Your task to perform on an android device: toggle notifications settings in the gmail app Image 0: 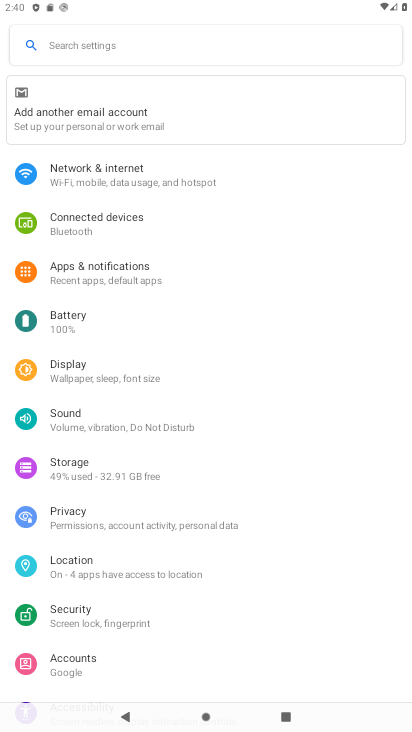
Step 0: press home button
Your task to perform on an android device: toggle notifications settings in the gmail app Image 1: 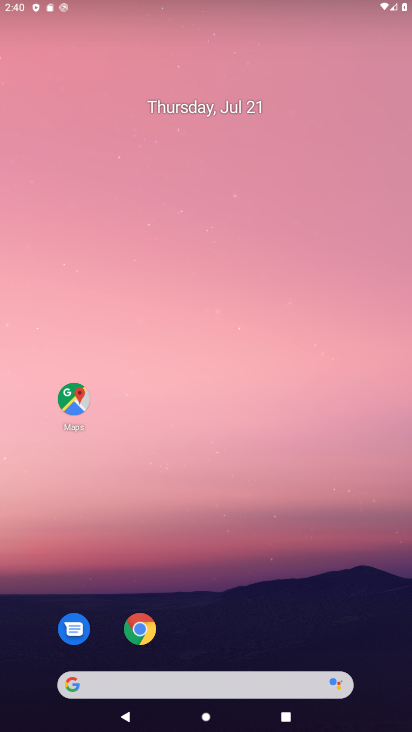
Step 1: drag from (185, 655) to (235, 110)
Your task to perform on an android device: toggle notifications settings in the gmail app Image 2: 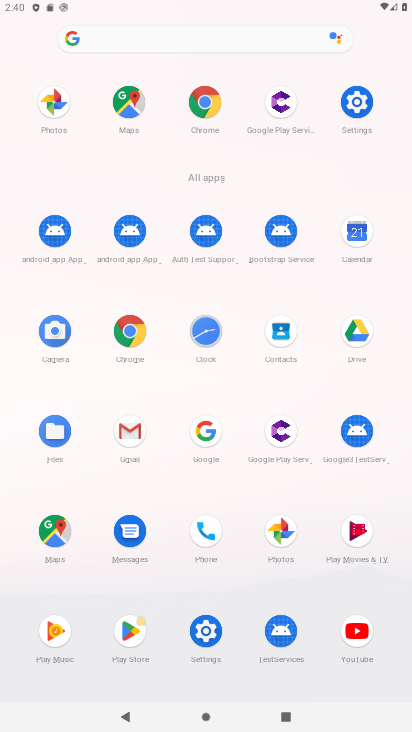
Step 2: click (125, 435)
Your task to perform on an android device: toggle notifications settings in the gmail app Image 3: 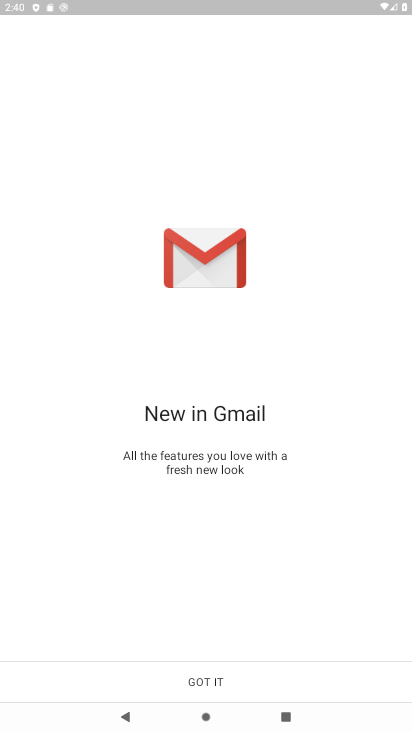
Step 3: click (206, 687)
Your task to perform on an android device: toggle notifications settings in the gmail app Image 4: 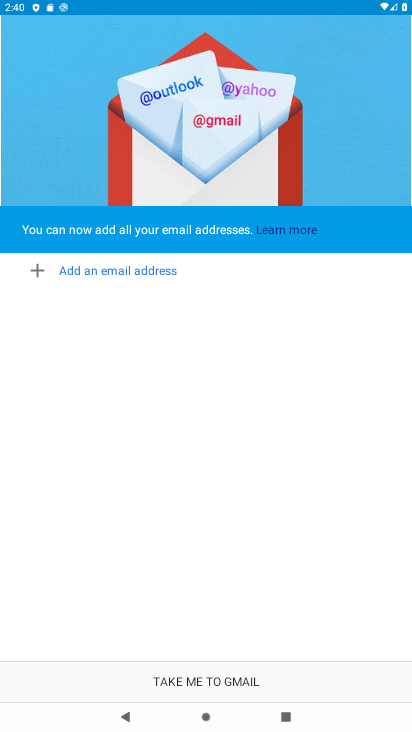
Step 4: click (206, 687)
Your task to perform on an android device: toggle notifications settings in the gmail app Image 5: 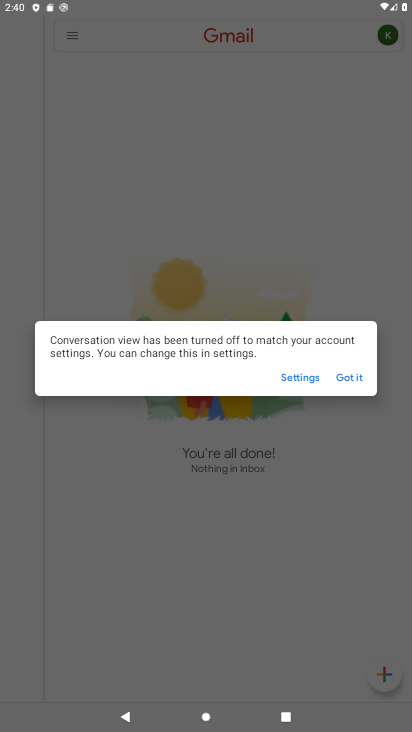
Step 5: click (291, 378)
Your task to perform on an android device: toggle notifications settings in the gmail app Image 6: 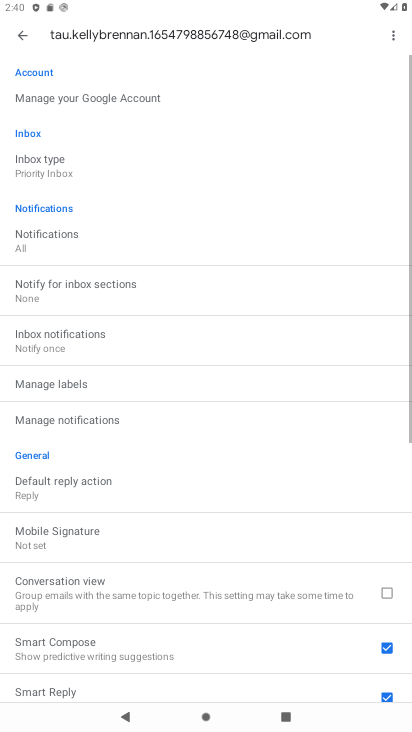
Step 6: click (52, 249)
Your task to perform on an android device: toggle notifications settings in the gmail app Image 7: 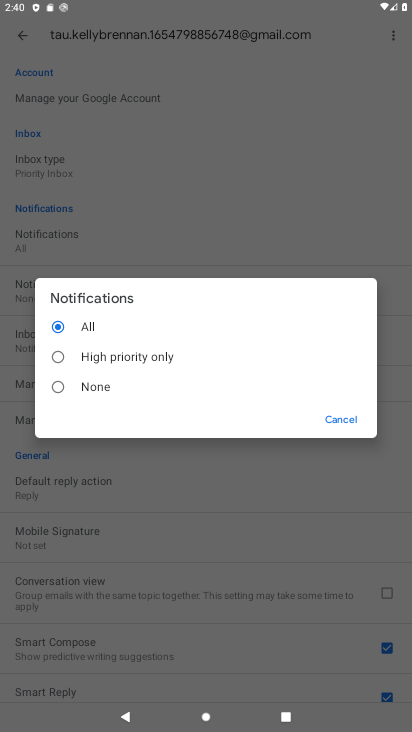
Step 7: click (58, 387)
Your task to perform on an android device: toggle notifications settings in the gmail app Image 8: 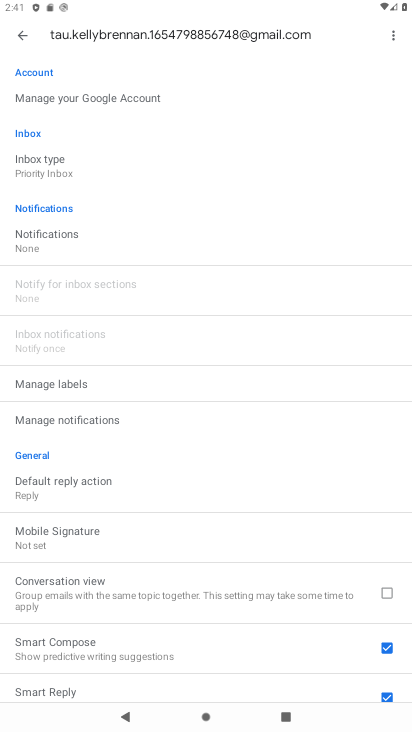
Step 8: task complete